Your task to perform on an android device: Search for seafood restaurants on Google Maps Image 0: 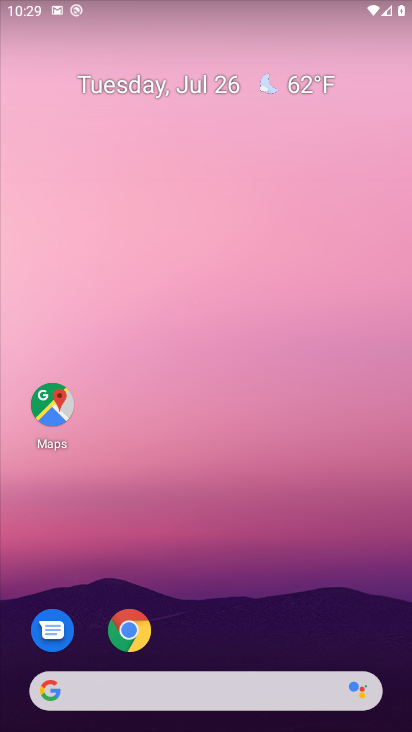
Step 0: press home button
Your task to perform on an android device: Search for seafood restaurants on Google Maps Image 1: 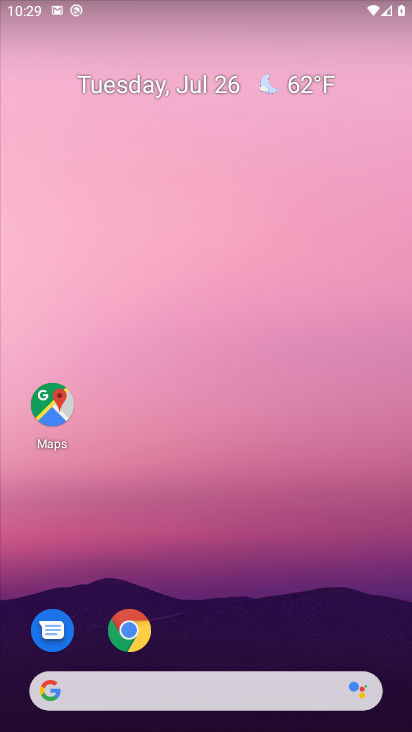
Step 1: click (40, 401)
Your task to perform on an android device: Search for seafood restaurants on Google Maps Image 2: 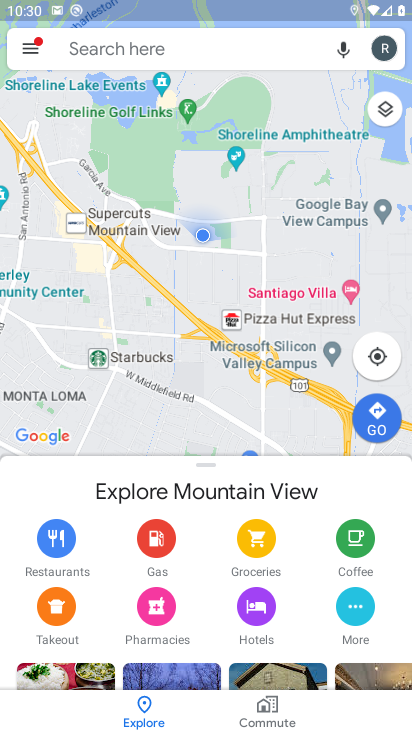
Step 2: click (109, 44)
Your task to perform on an android device: Search for seafood restaurants on Google Maps Image 3: 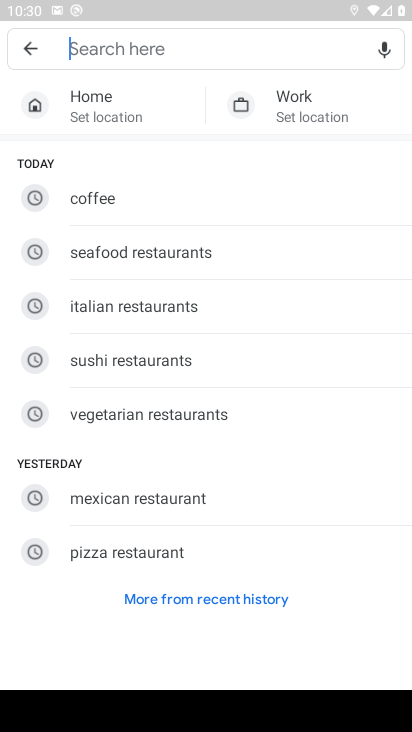
Step 3: click (124, 251)
Your task to perform on an android device: Search for seafood restaurants on Google Maps Image 4: 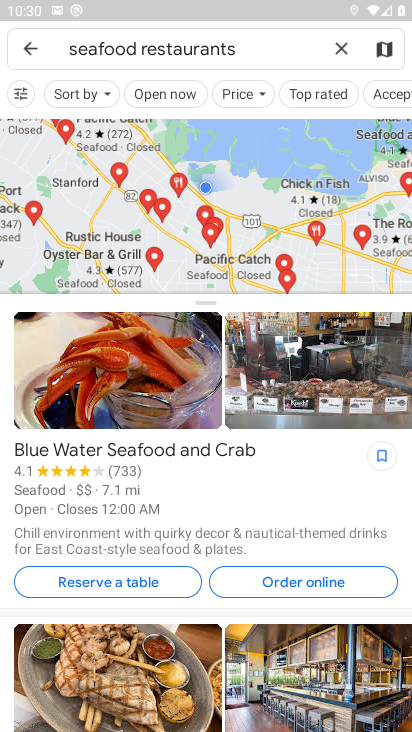
Step 4: task complete